Your task to perform on an android device: Search for Italian restaurants on Maps Image 0: 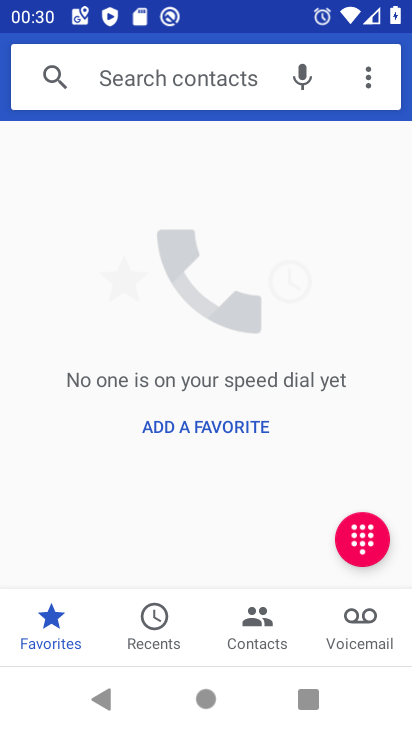
Step 0: press home button
Your task to perform on an android device: Search for Italian restaurants on Maps Image 1: 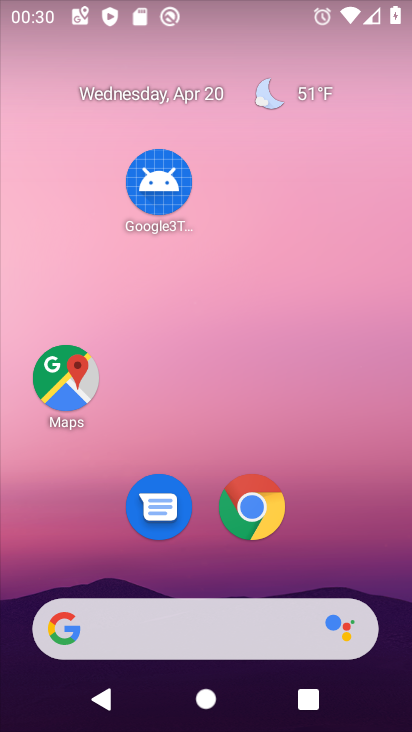
Step 1: click (64, 384)
Your task to perform on an android device: Search for Italian restaurants on Maps Image 2: 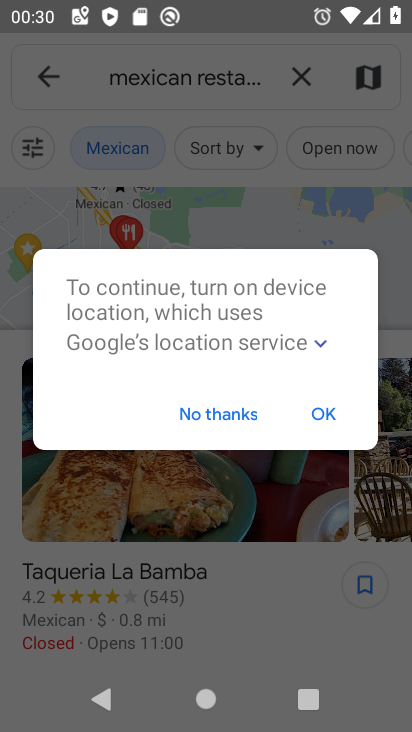
Step 2: click (317, 420)
Your task to perform on an android device: Search for Italian restaurants on Maps Image 3: 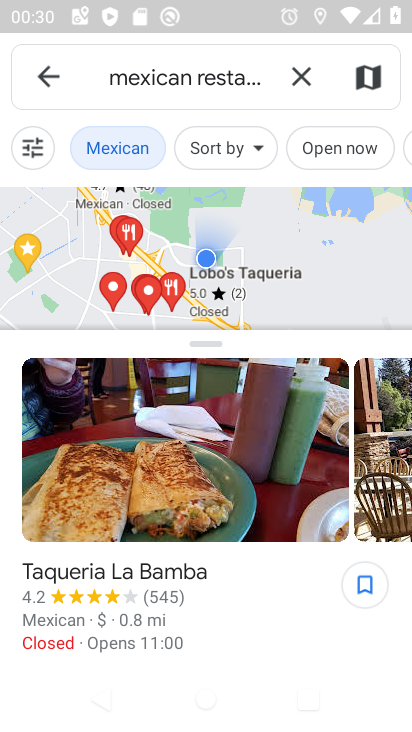
Step 3: click (303, 70)
Your task to perform on an android device: Search for Italian restaurants on Maps Image 4: 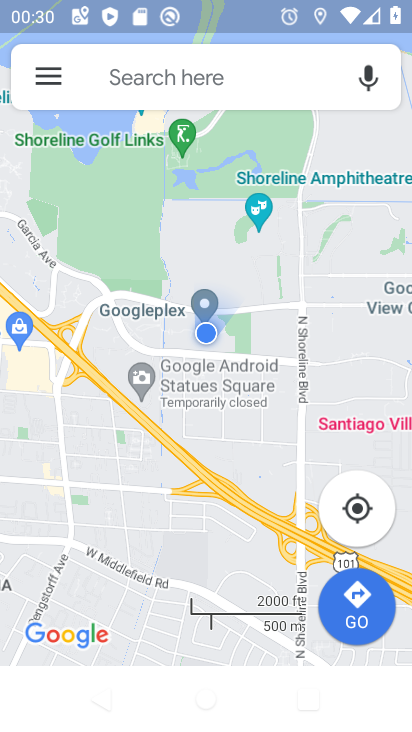
Step 4: click (205, 77)
Your task to perform on an android device: Search for Italian restaurants on Maps Image 5: 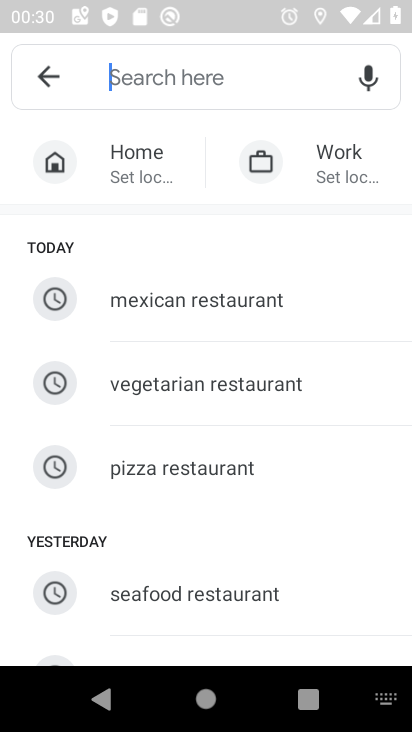
Step 5: type "Italian restaurants"
Your task to perform on an android device: Search for Italian restaurants on Maps Image 6: 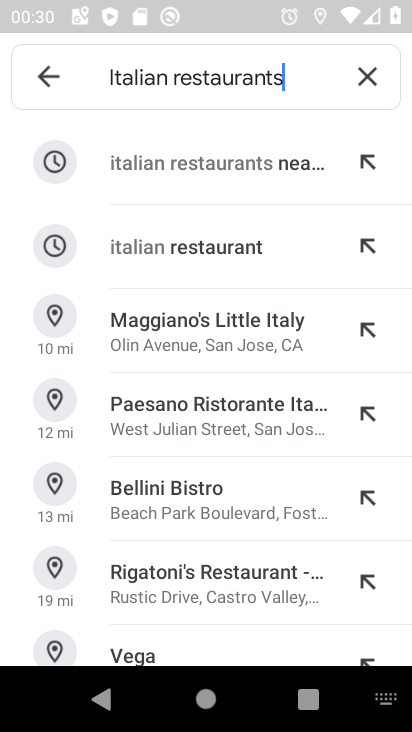
Step 6: click (201, 245)
Your task to perform on an android device: Search for Italian restaurants on Maps Image 7: 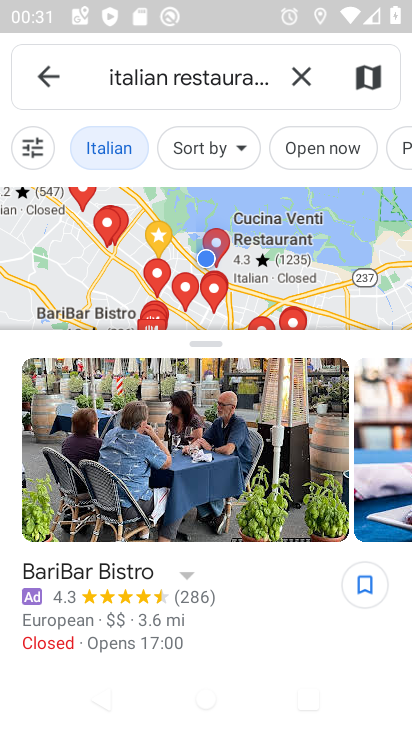
Step 7: task complete